Your task to perform on an android device: Go to Reddit.com Image 0: 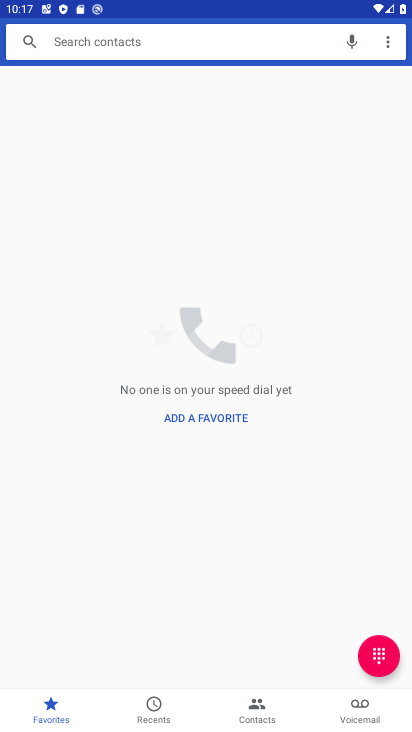
Step 0: task complete